Your task to perform on an android device: open chrome privacy settings Image 0: 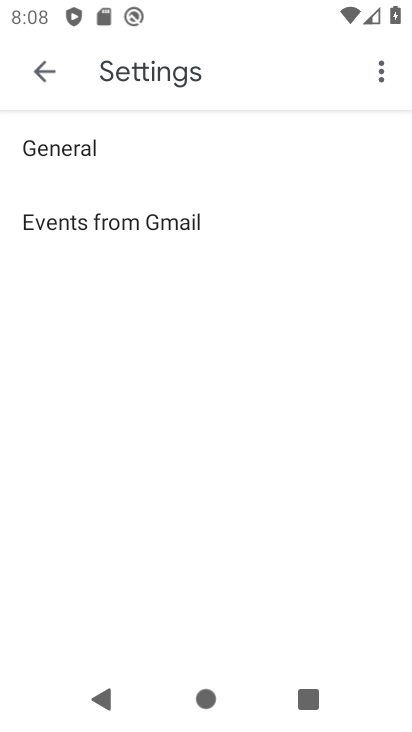
Step 0: press home button
Your task to perform on an android device: open chrome privacy settings Image 1: 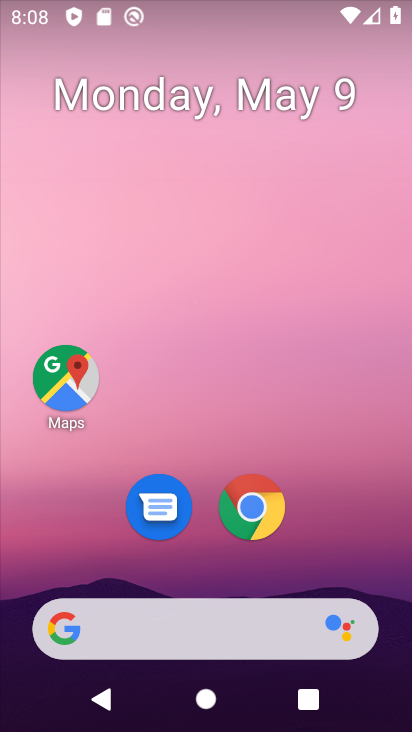
Step 1: click (236, 492)
Your task to perform on an android device: open chrome privacy settings Image 2: 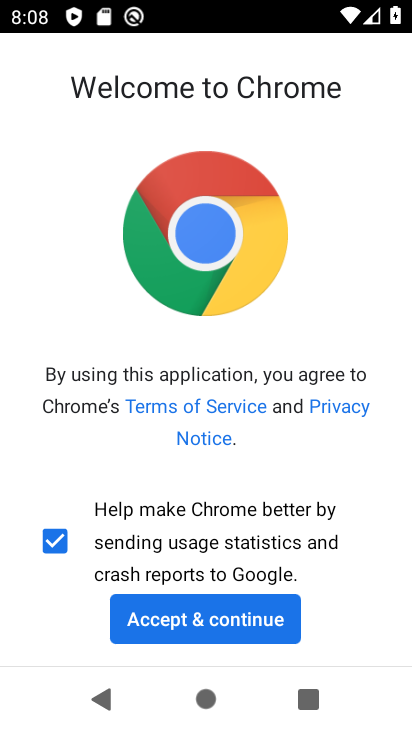
Step 2: click (187, 610)
Your task to perform on an android device: open chrome privacy settings Image 3: 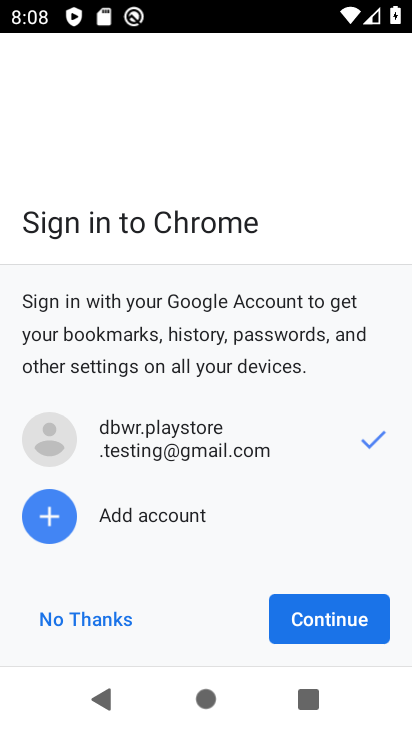
Step 3: click (333, 609)
Your task to perform on an android device: open chrome privacy settings Image 4: 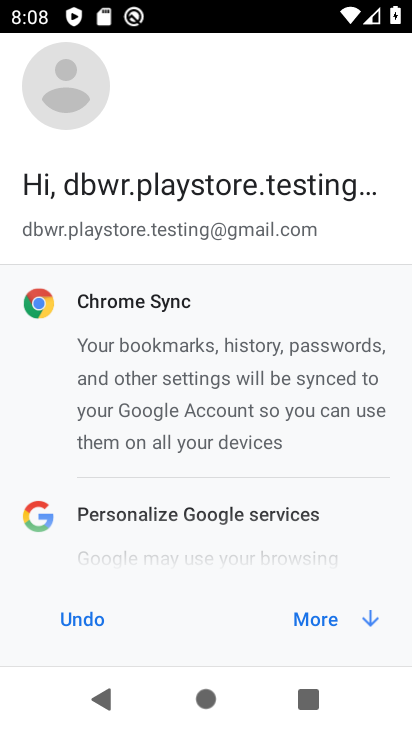
Step 4: click (303, 609)
Your task to perform on an android device: open chrome privacy settings Image 5: 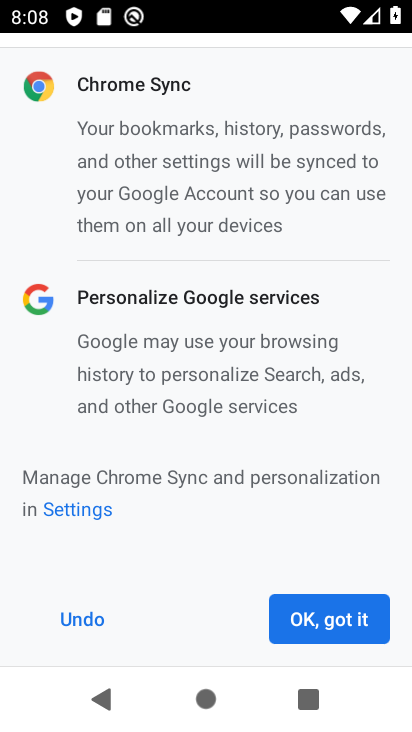
Step 5: click (289, 599)
Your task to perform on an android device: open chrome privacy settings Image 6: 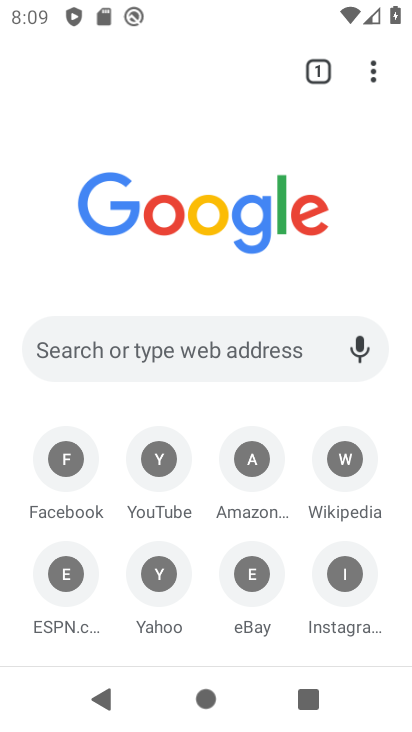
Step 6: click (361, 70)
Your task to perform on an android device: open chrome privacy settings Image 7: 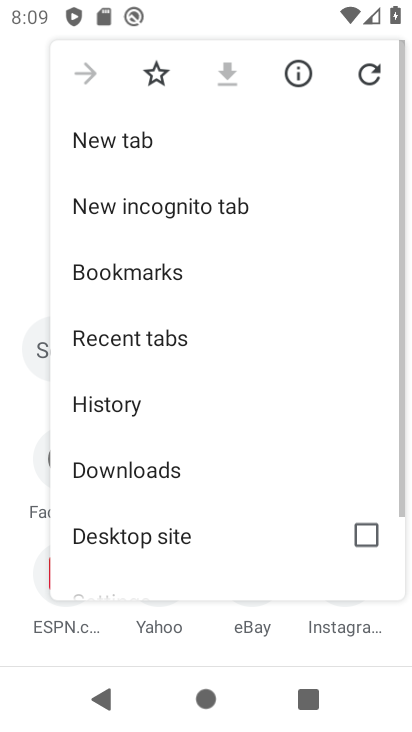
Step 7: drag from (243, 476) to (183, 2)
Your task to perform on an android device: open chrome privacy settings Image 8: 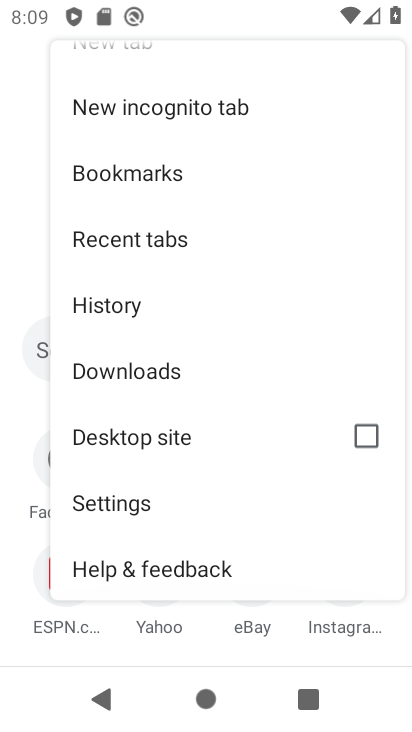
Step 8: click (103, 486)
Your task to perform on an android device: open chrome privacy settings Image 9: 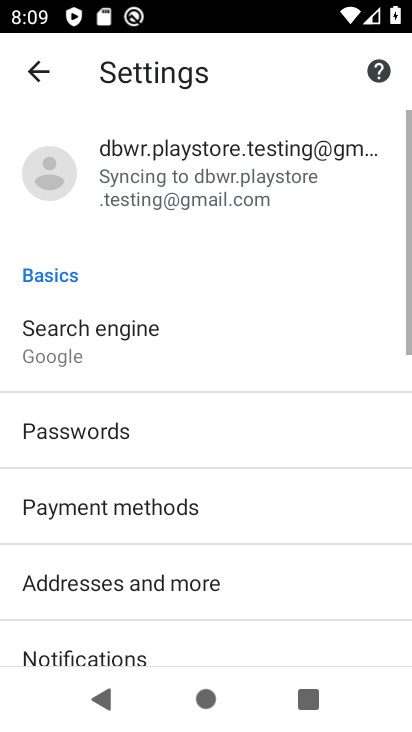
Step 9: drag from (163, 519) to (158, 9)
Your task to perform on an android device: open chrome privacy settings Image 10: 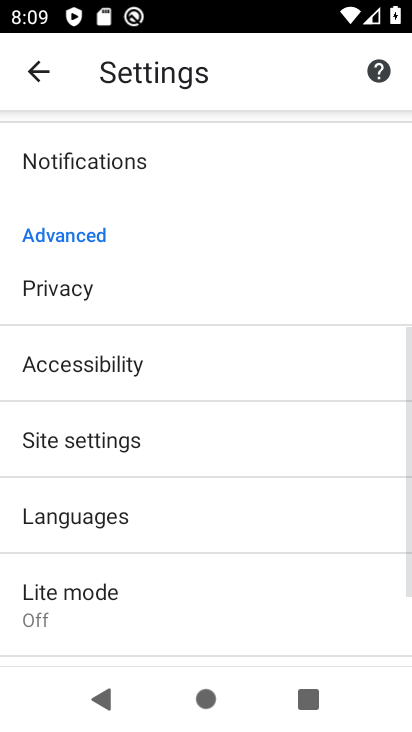
Step 10: drag from (111, 573) to (91, 328)
Your task to perform on an android device: open chrome privacy settings Image 11: 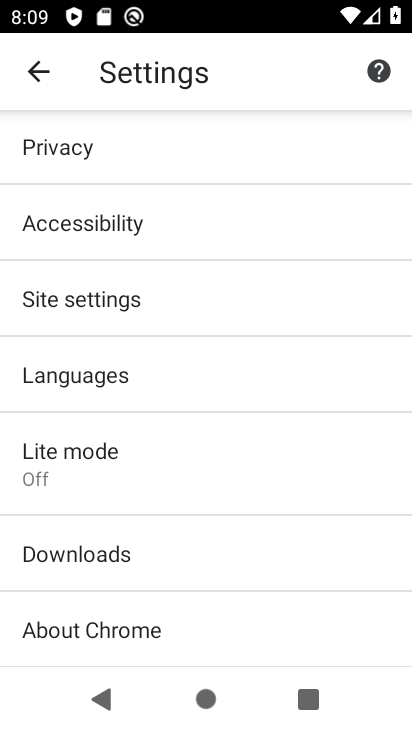
Step 11: click (64, 177)
Your task to perform on an android device: open chrome privacy settings Image 12: 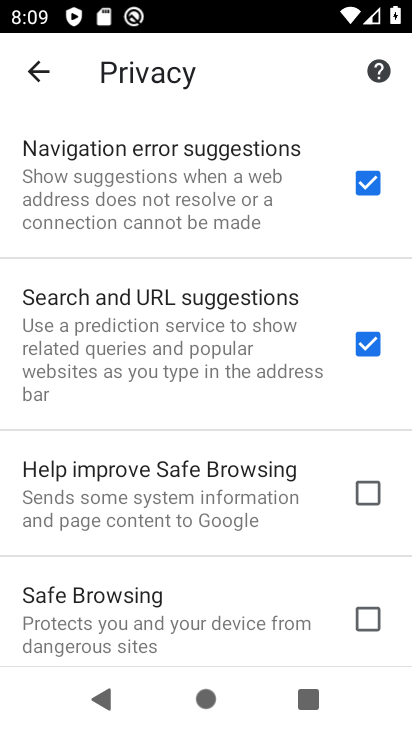
Step 12: task complete